Your task to perform on an android device: Set the phone to "Do not disturb". Image 0: 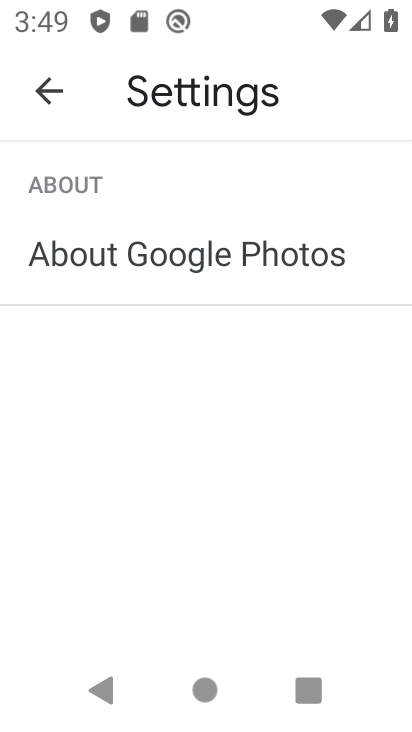
Step 0: press home button
Your task to perform on an android device: Set the phone to "Do not disturb". Image 1: 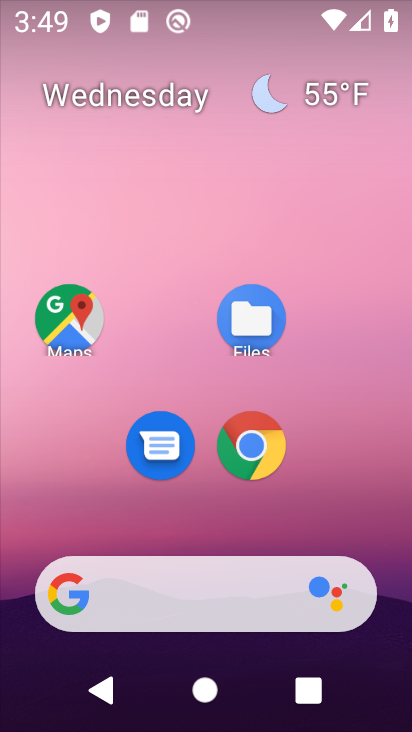
Step 1: drag from (323, 505) to (319, 226)
Your task to perform on an android device: Set the phone to "Do not disturb". Image 2: 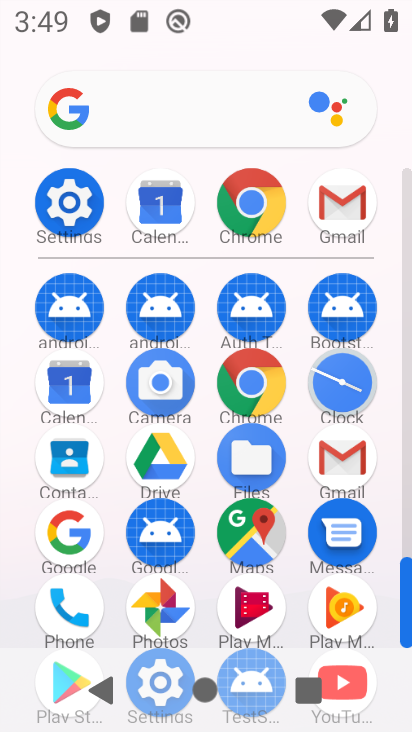
Step 2: click (69, 221)
Your task to perform on an android device: Set the phone to "Do not disturb". Image 3: 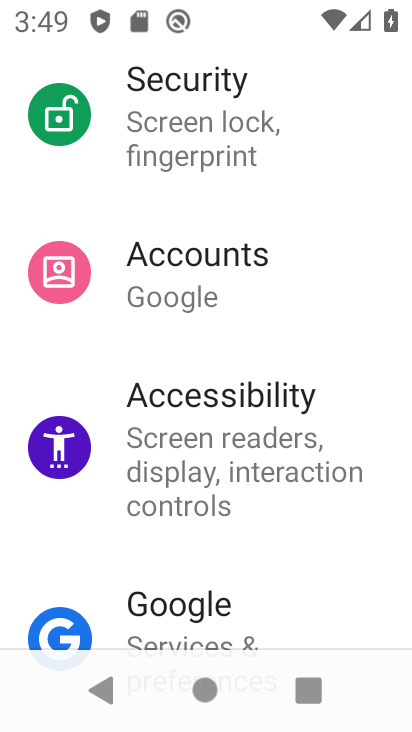
Step 3: drag from (304, 545) to (309, 255)
Your task to perform on an android device: Set the phone to "Do not disturb". Image 4: 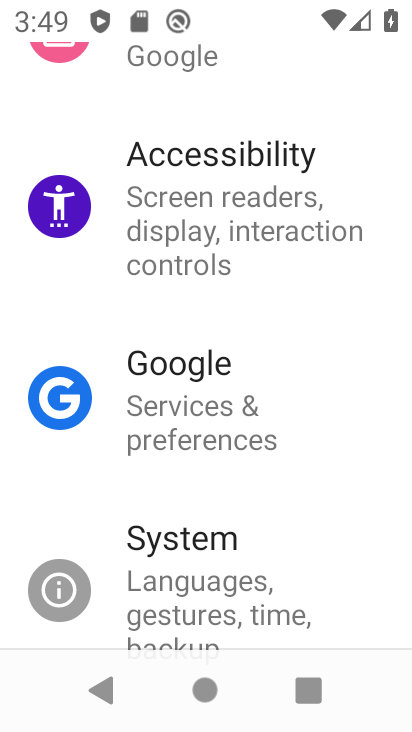
Step 4: drag from (302, 520) to (288, 457)
Your task to perform on an android device: Set the phone to "Do not disturb". Image 5: 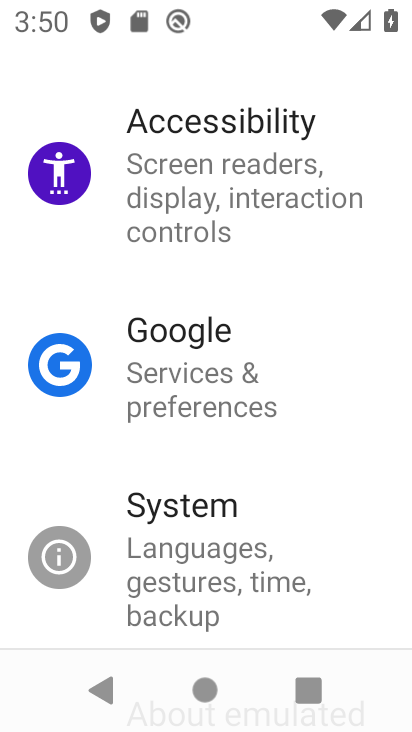
Step 5: drag from (278, 159) to (411, 586)
Your task to perform on an android device: Set the phone to "Do not disturb". Image 6: 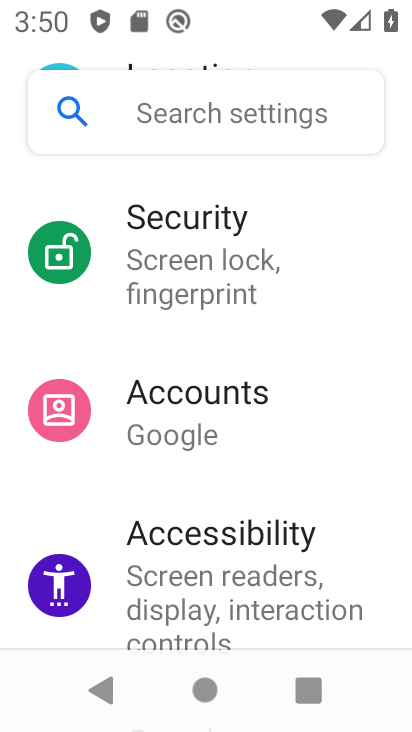
Step 6: drag from (348, 333) to (399, 651)
Your task to perform on an android device: Set the phone to "Do not disturb". Image 7: 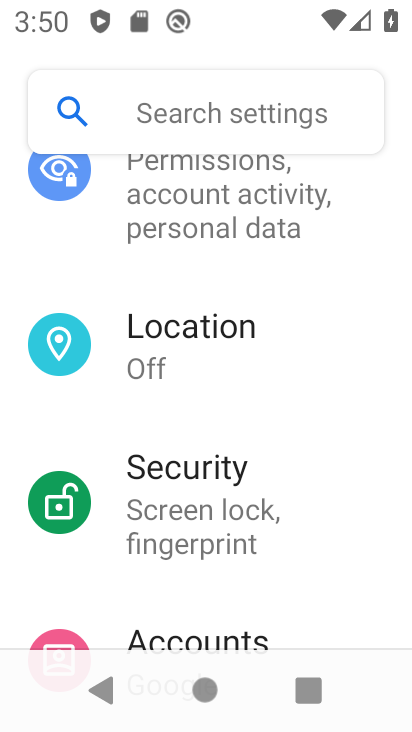
Step 7: drag from (308, 235) to (321, 590)
Your task to perform on an android device: Set the phone to "Do not disturb". Image 8: 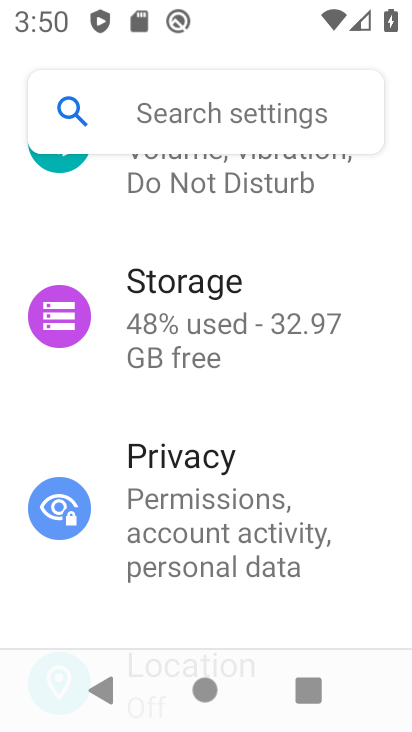
Step 8: drag from (297, 186) to (368, 476)
Your task to perform on an android device: Set the phone to "Do not disturb". Image 9: 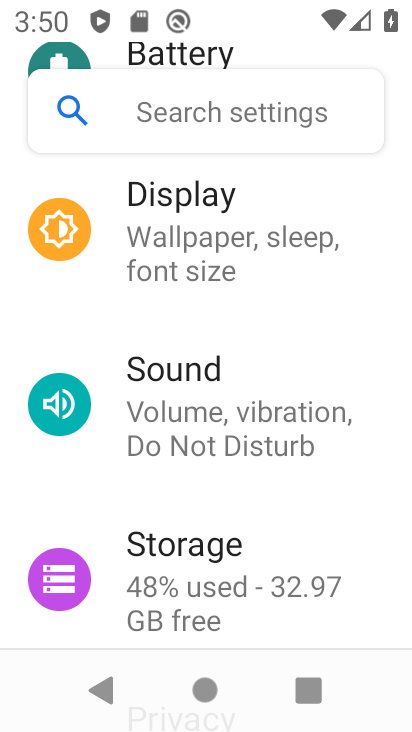
Step 9: click (348, 433)
Your task to perform on an android device: Set the phone to "Do not disturb". Image 10: 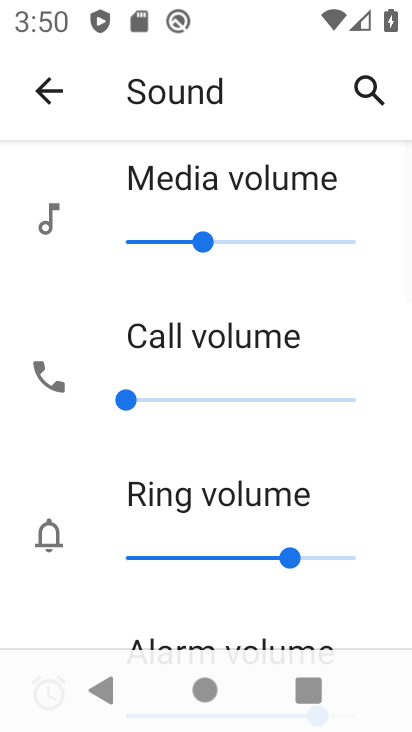
Step 10: drag from (384, 463) to (315, 98)
Your task to perform on an android device: Set the phone to "Do not disturb". Image 11: 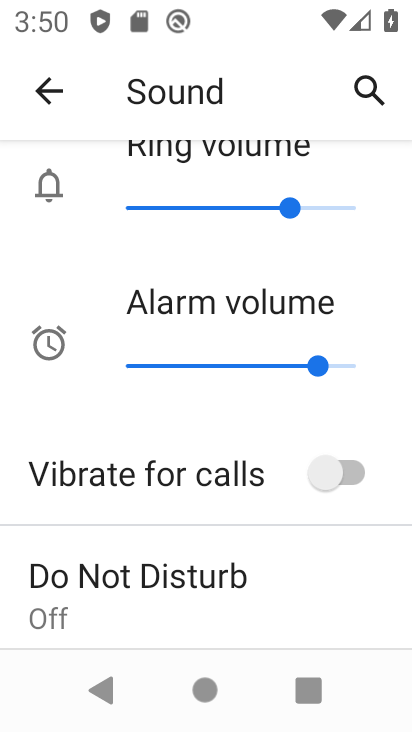
Step 11: drag from (311, 477) to (285, 32)
Your task to perform on an android device: Set the phone to "Do not disturb". Image 12: 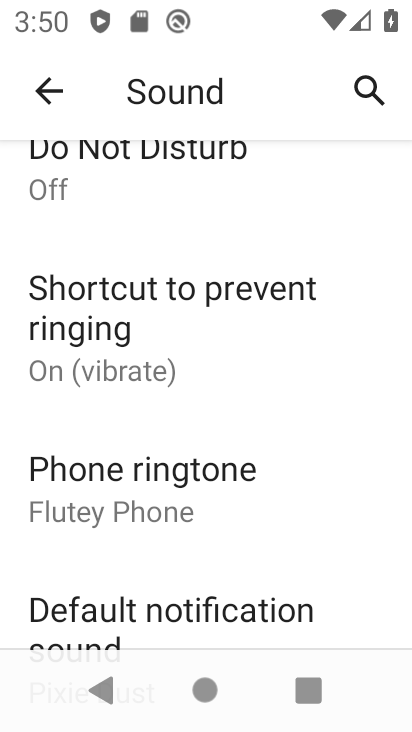
Step 12: click (294, 166)
Your task to perform on an android device: Set the phone to "Do not disturb". Image 13: 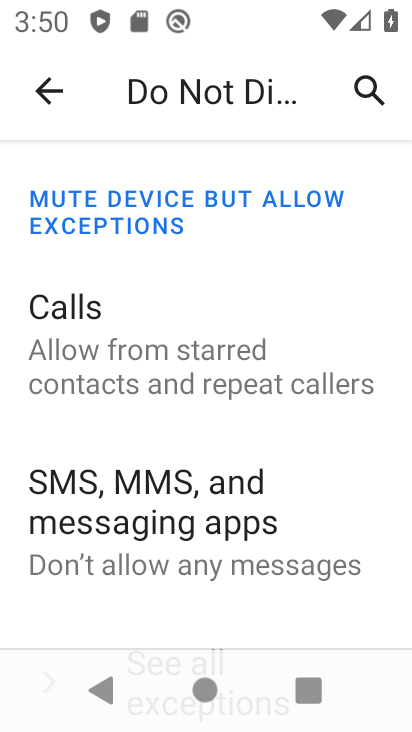
Step 13: drag from (295, 482) to (230, 6)
Your task to perform on an android device: Set the phone to "Do not disturb". Image 14: 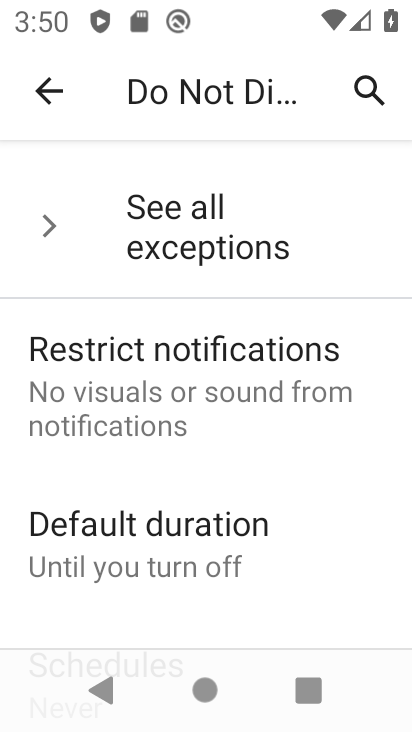
Step 14: click (290, 249)
Your task to perform on an android device: Set the phone to "Do not disturb". Image 15: 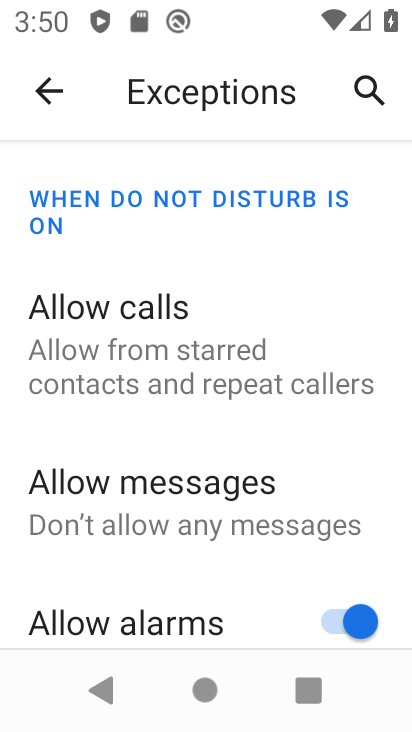
Step 15: drag from (221, 477) to (181, 140)
Your task to perform on an android device: Set the phone to "Do not disturb". Image 16: 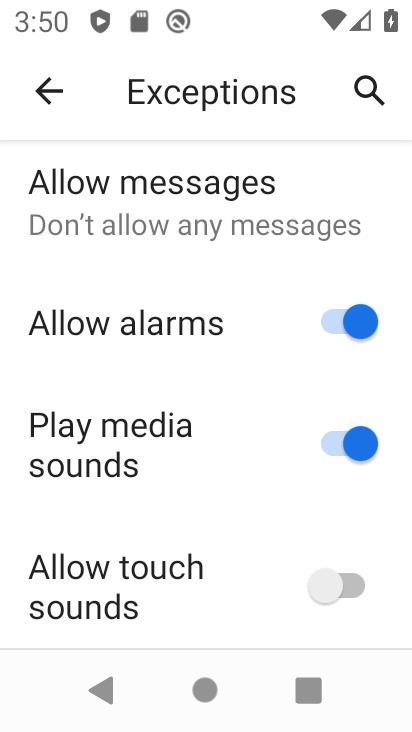
Step 16: drag from (243, 537) to (243, 115)
Your task to perform on an android device: Set the phone to "Do not disturb". Image 17: 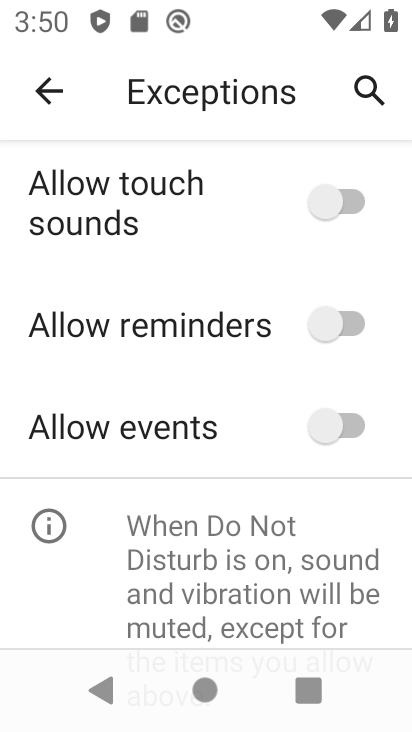
Step 17: click (360, 204)
Your task to perform on an android device: Set the phone to "Do not disturb". Image 18: 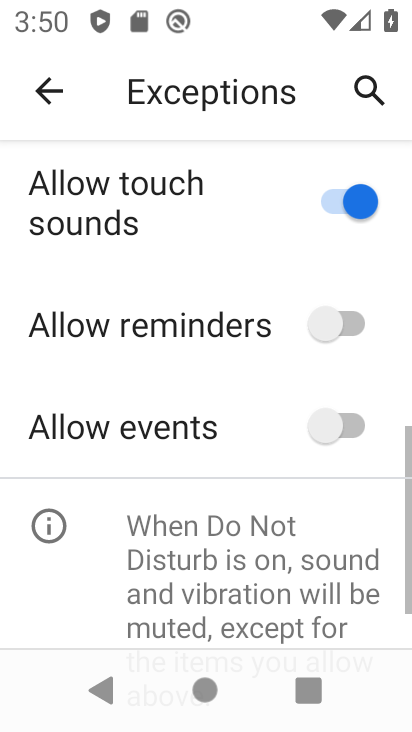
Step 18: click (332, 339)
Your task to perform on an android device: Set the phone to "Do not disturb". Image 19: 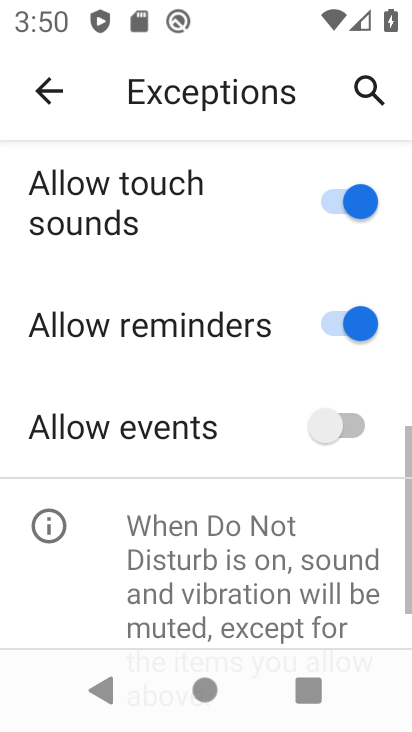
Step 19: click (339, 421)
Your task to perform on an android device: Set the phone to "Do not disturb". Image 20: 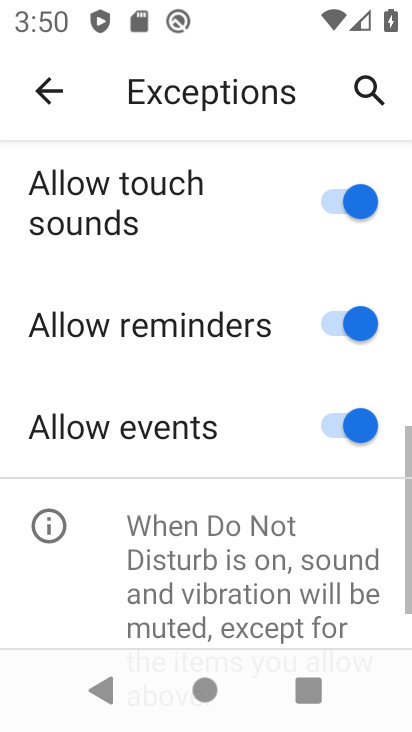
Step 20: drag from (266, 213) to (285, 458)
Your task to perform on an android device: Set the phone to "Do not disturb". Image 21: 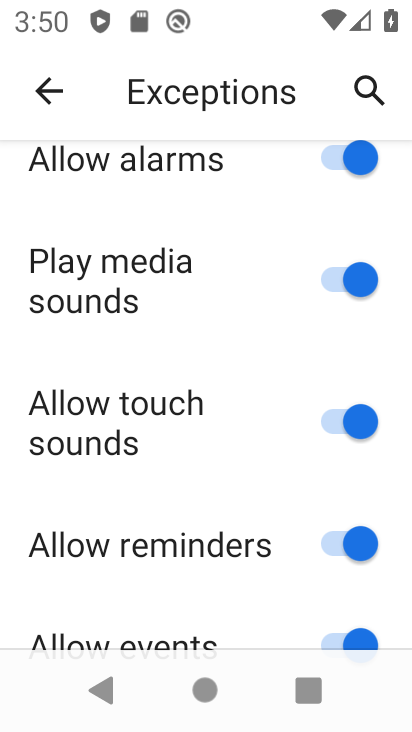
Step 21: drag from (166, 179) to (194, 550)
Your task to perform on an android device: Set the phone to "Do not disturb". Image 22: 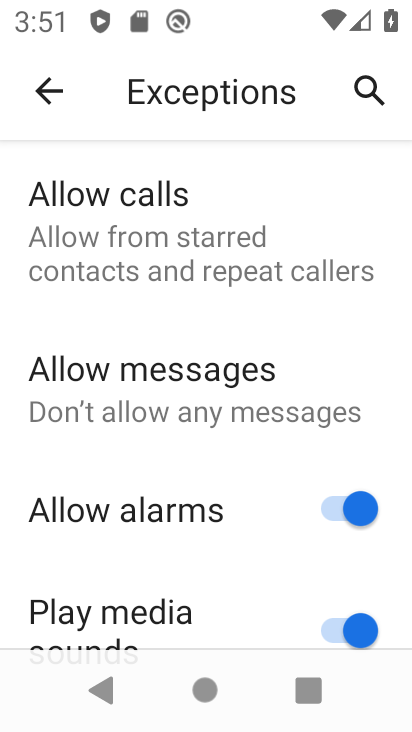
Step 22: click (65, 94)
Your task to perform on an android device: Set the phone to "Do not disturb". Image 23: 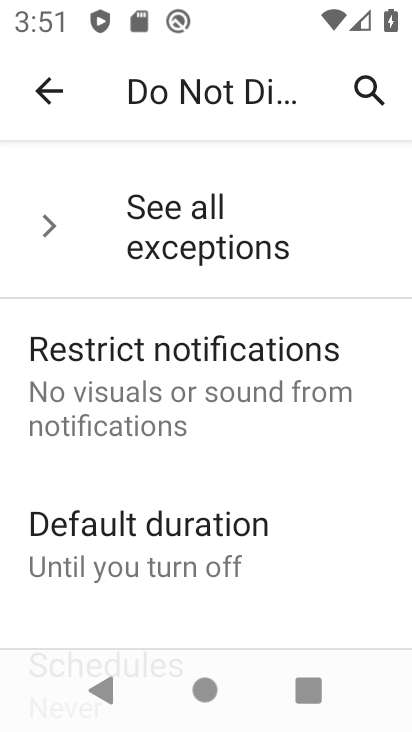
Step 23: drag from (204, 150) to (305, 500)
Your task to perform on an android device: Set the phone to "Do not disturb". Image 24: 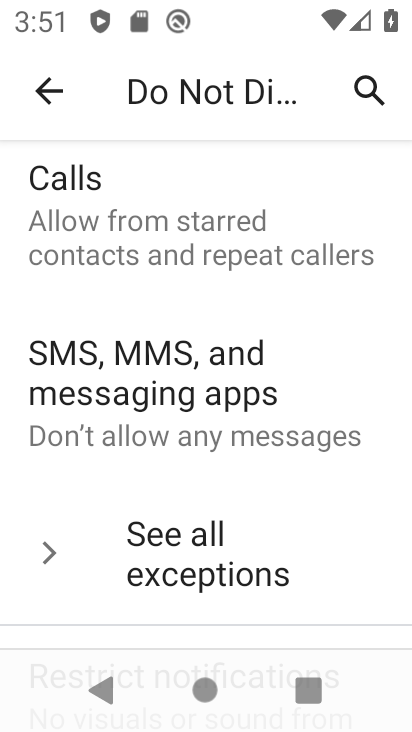
Step 24: drag from (265, 251) to (375, 654)
Your task to perform on an android device: Set the phone to "Do not disturb". Image 25: 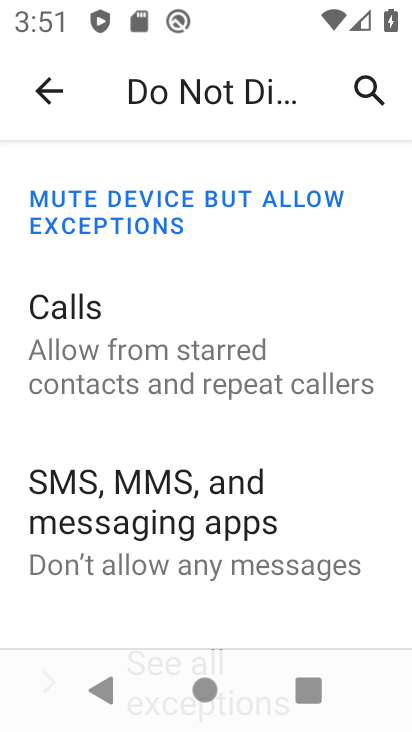
Step 25: drag from (229, 278) to (253, 649)
Your task to perform on an android device: Set the phone to "Do not disturb". Image 26: 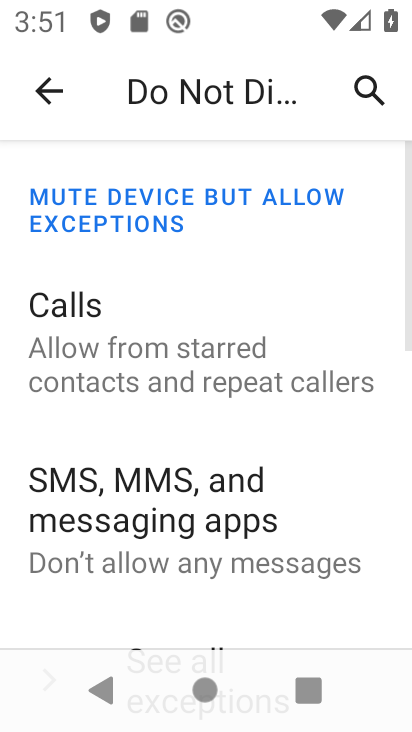
Step 26: drag from (312, 500) to (270, 137)
Your task to perform on an android device: Set the phone to "Do not disturb". Image 27: 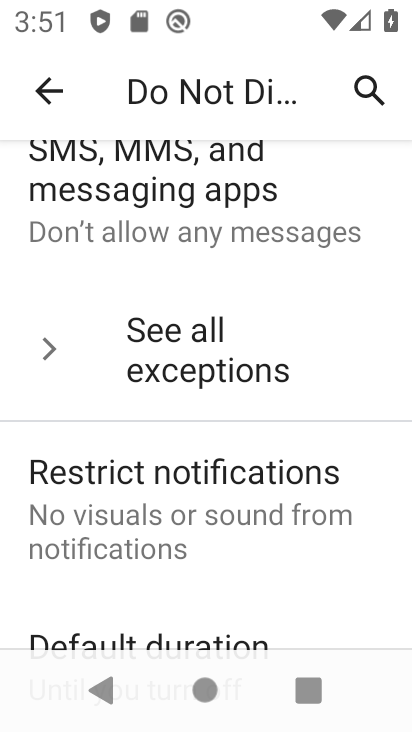
Step 27: drag from (345, 558) to (334, 126)
Your task to perform on an android device: Set the phone to "Do not disturb". Image 28: 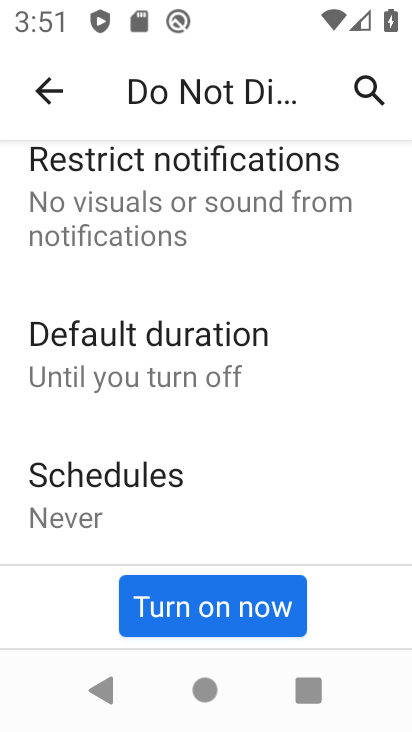
Step 28: click (265, 610)
Your task to perform on an android device: Set the phone to "Do not disturb". Image 29: 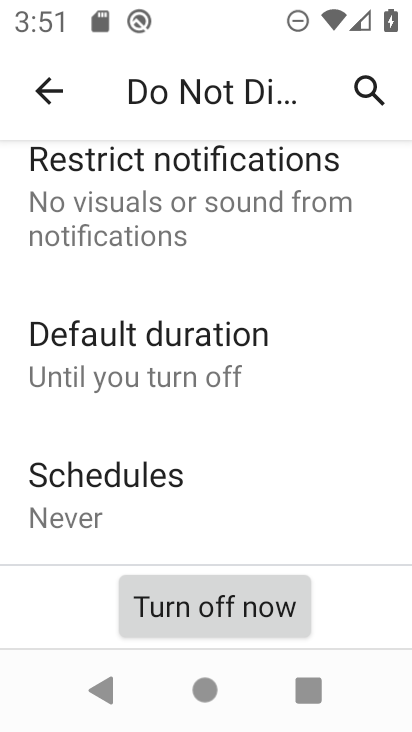
Step 29: task complete